Your task to perform on an android device: uninstall "HBO Max: Stream TV & Movies" Image 0: 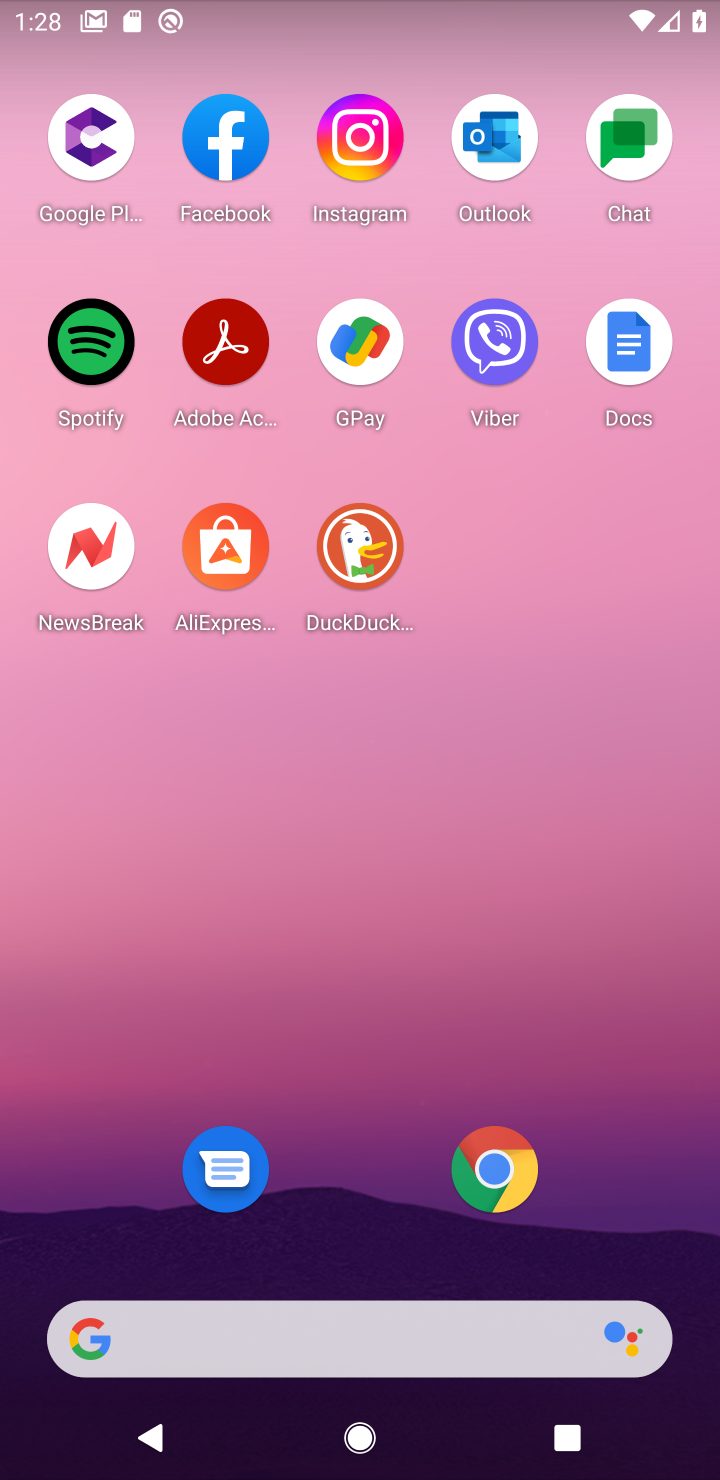
Step 0: click (475, 132)
Your task to perform on an android device: uninstall "HBO Max: Stream TV & Movies" Image 1: 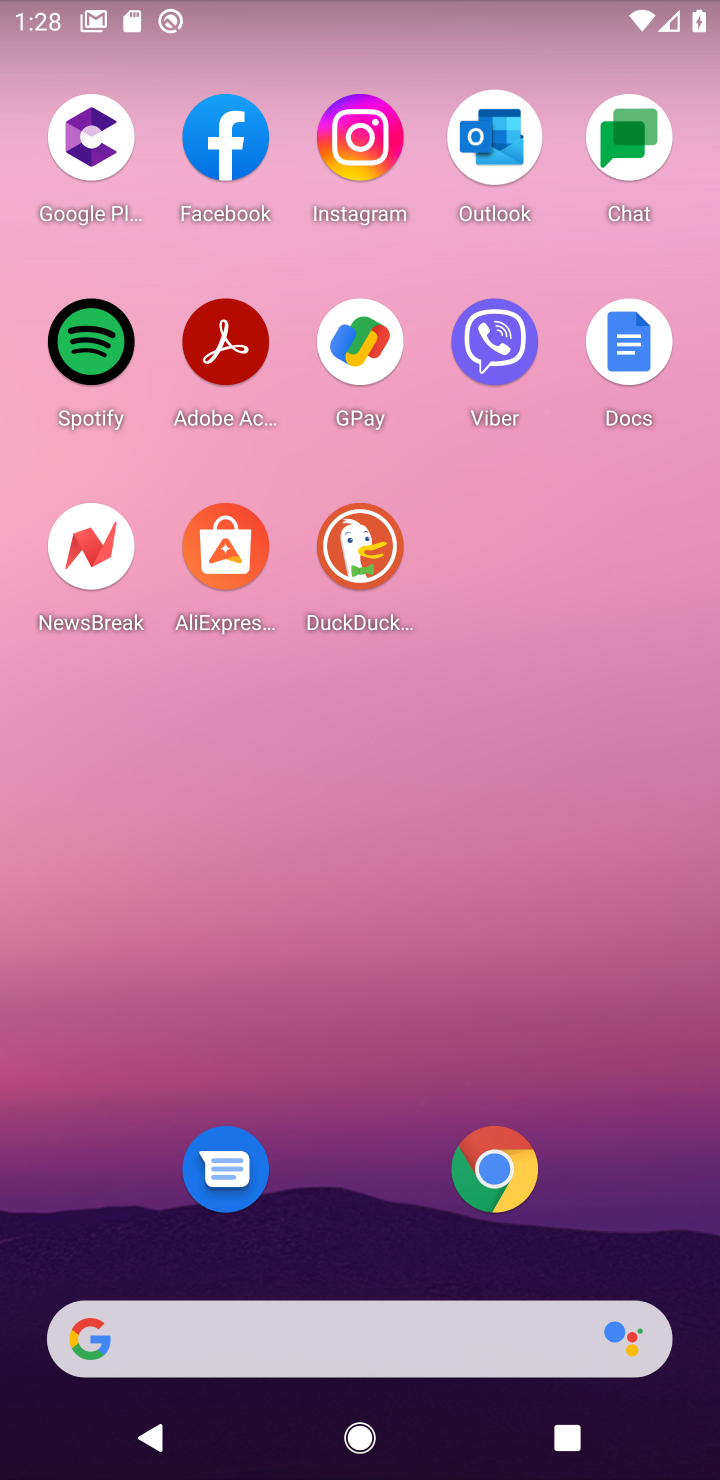
Step 1: click (392, 416)
Your task to perform on an android device: uninstall "HBO Max: Stream TV & Movies" Image 2: 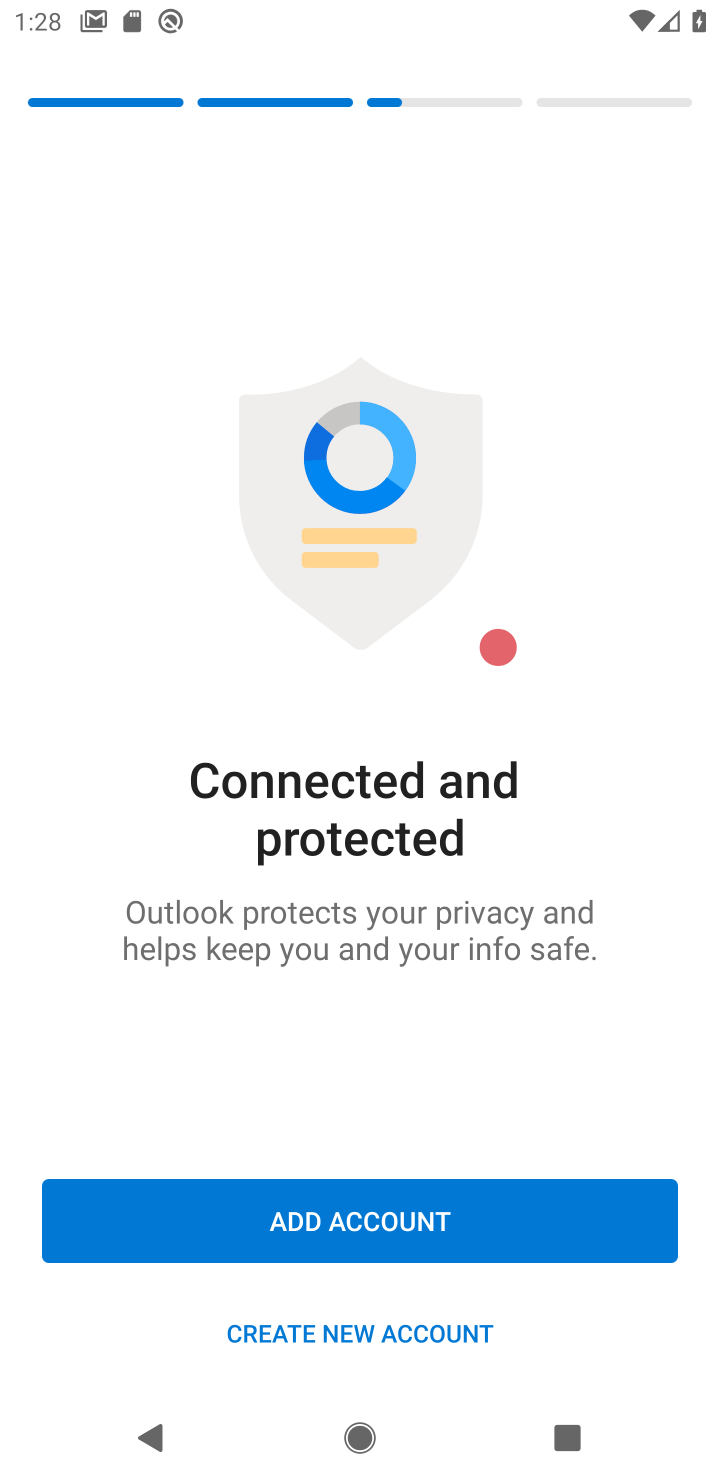
Step 2: press home button
Your task to perform on an android device: uninstall "HBO Max: Stream TV & Movies" Image 3: 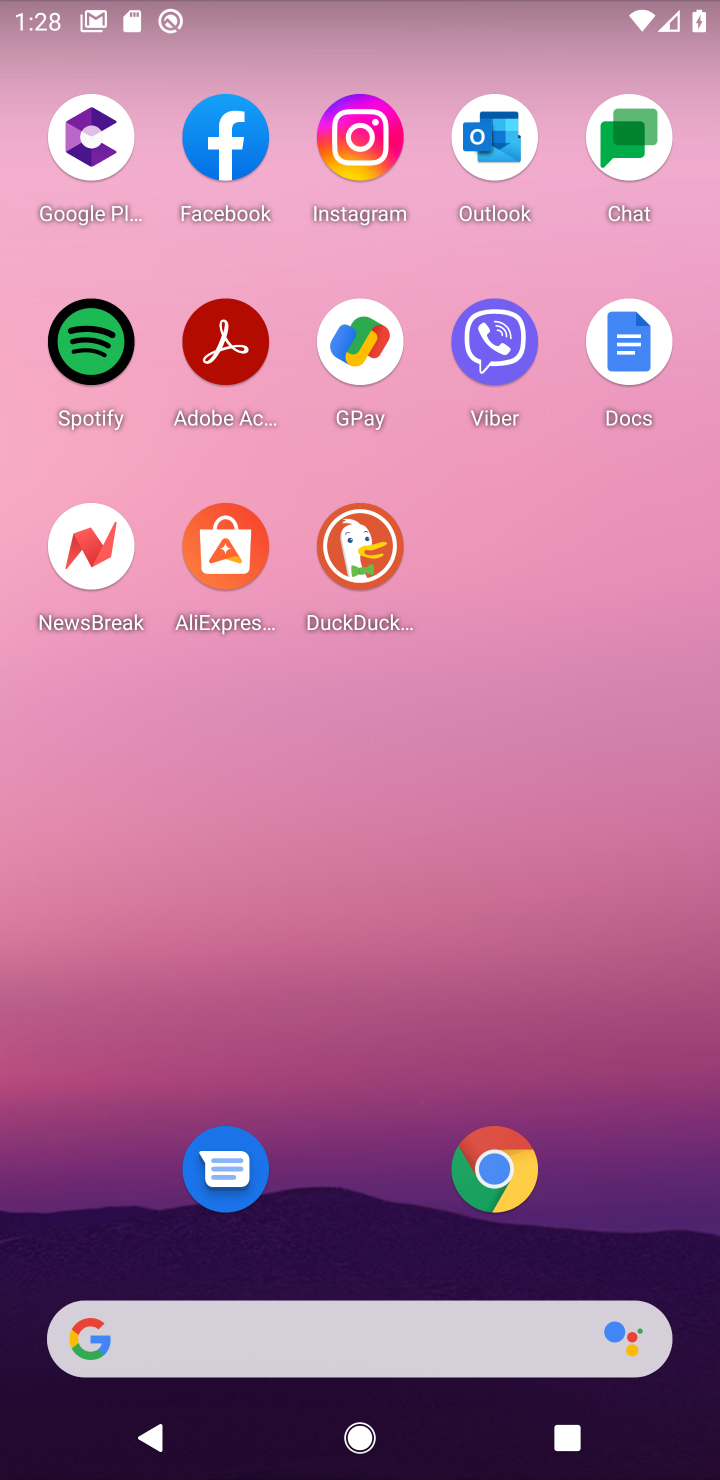
Step 3: click (378, 188)
Your task to perform on an android device: uninstall "HBO Max: Stream TV & Movies" Image 4: 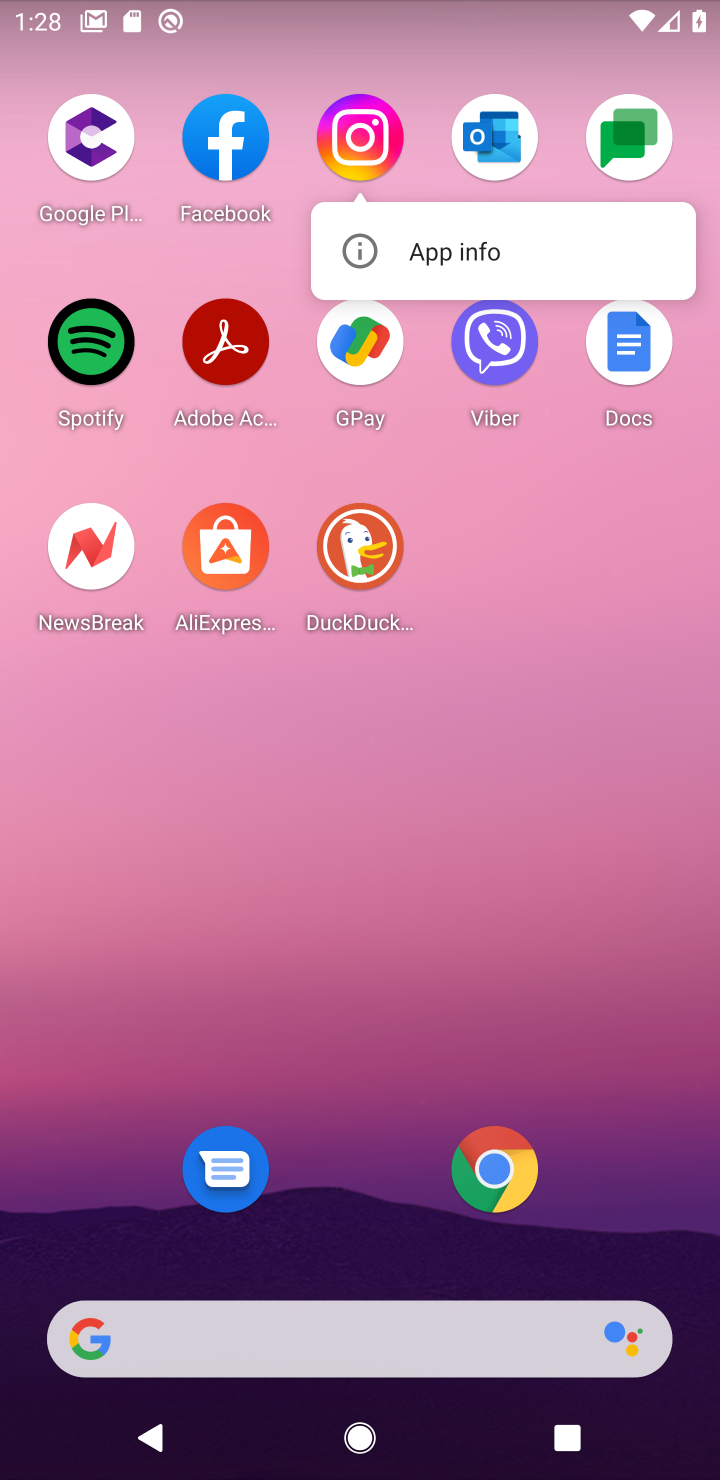
Step 4: drag from (388, 503) to (441, 375)
Your task to perform on an android device: uninstall "HBO Max: Stream TV & Movies" Image 5: 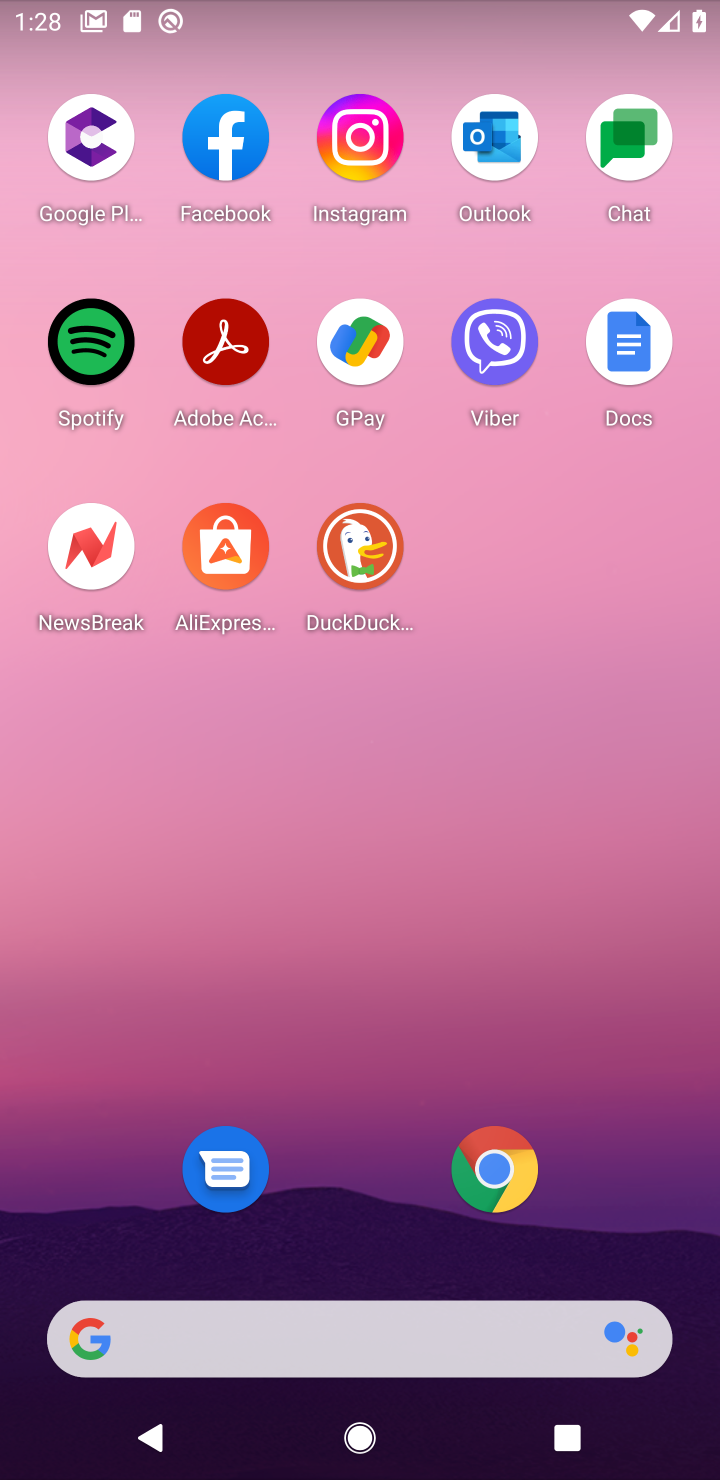
Step 5: drag from (329, 1247) to (411, 150)
Your task to perform on an android device: uninstall "HBO Max: Stream TV & Movies" Image 6: 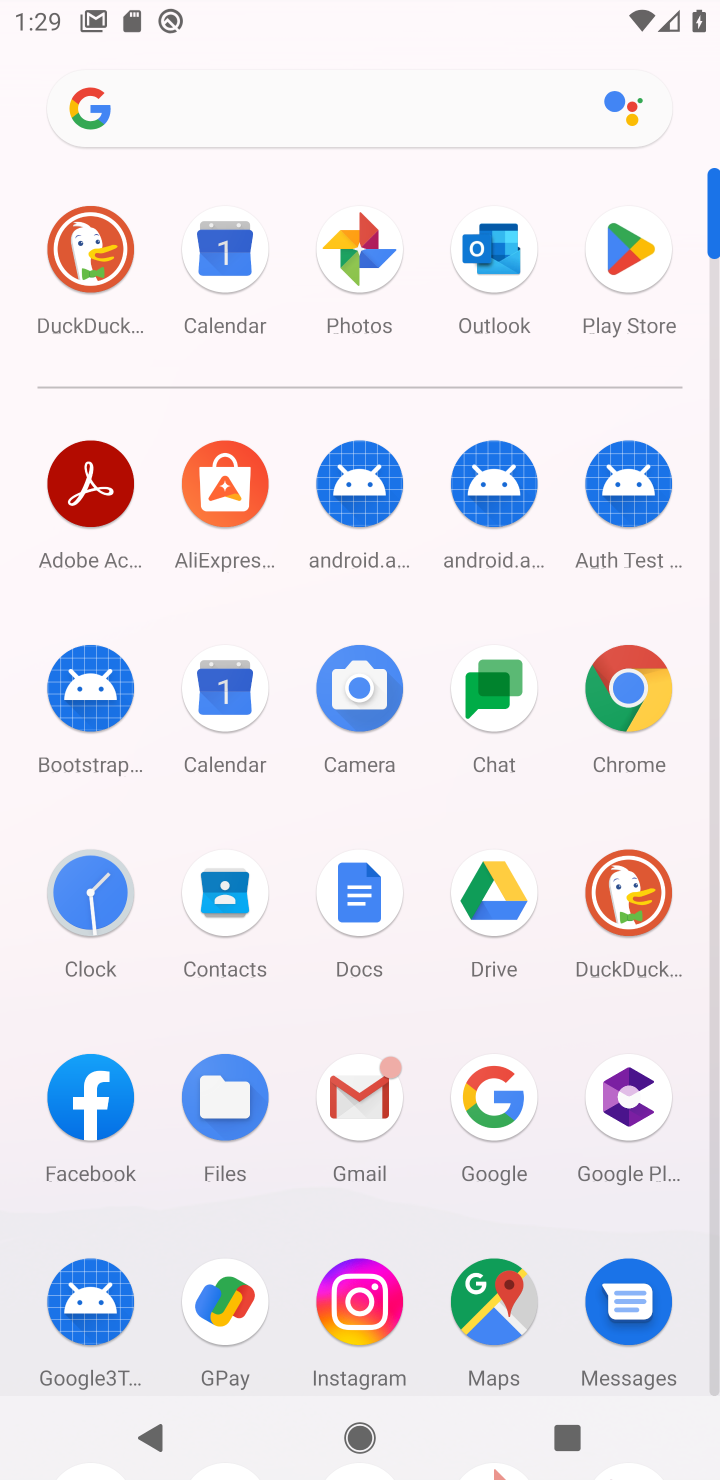
Step 6: click (626, 253)
Your task to perform on an android device: uninstall "HBO Max: Stream TV & Movies" Image 7: 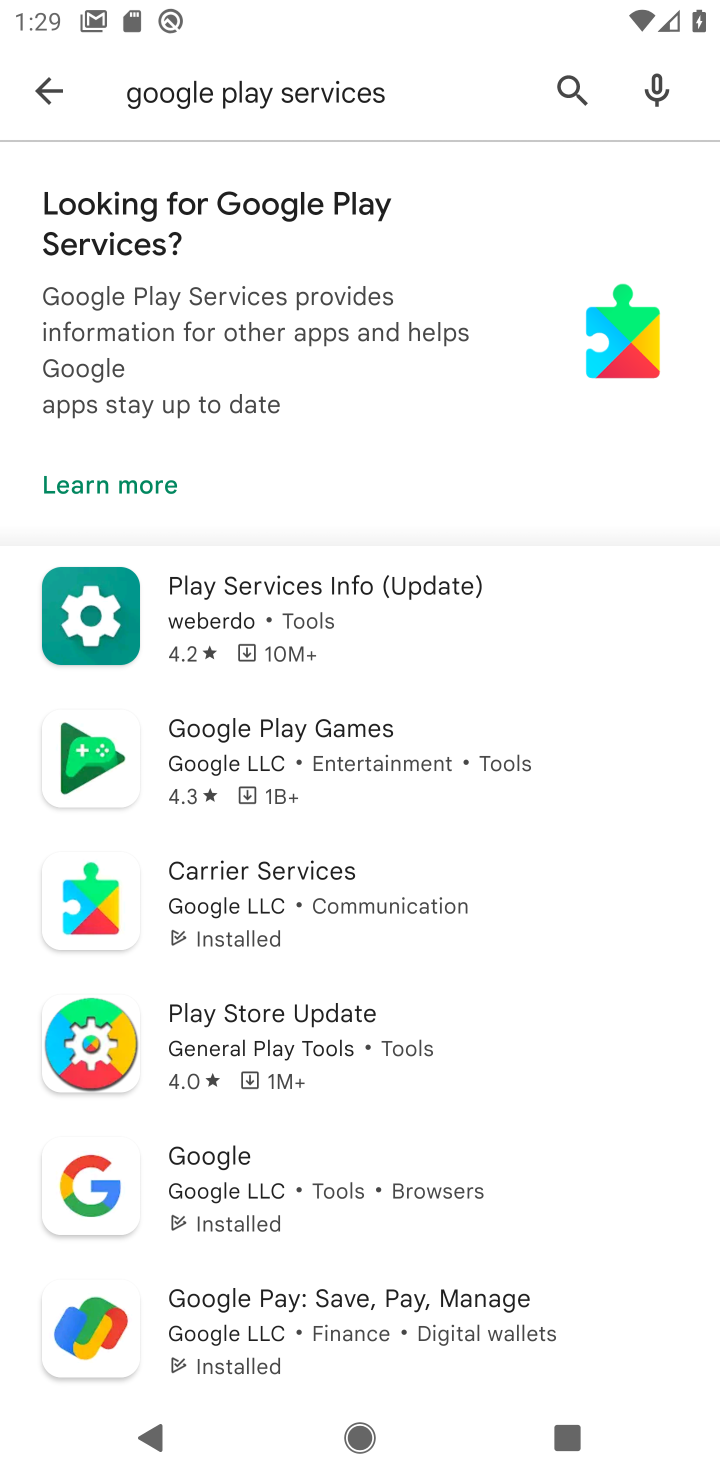
Step 7: click (45, 81)
Your task to perform on an android device: uninstall "HBO Max: Stream TV & Movies" Image 8: 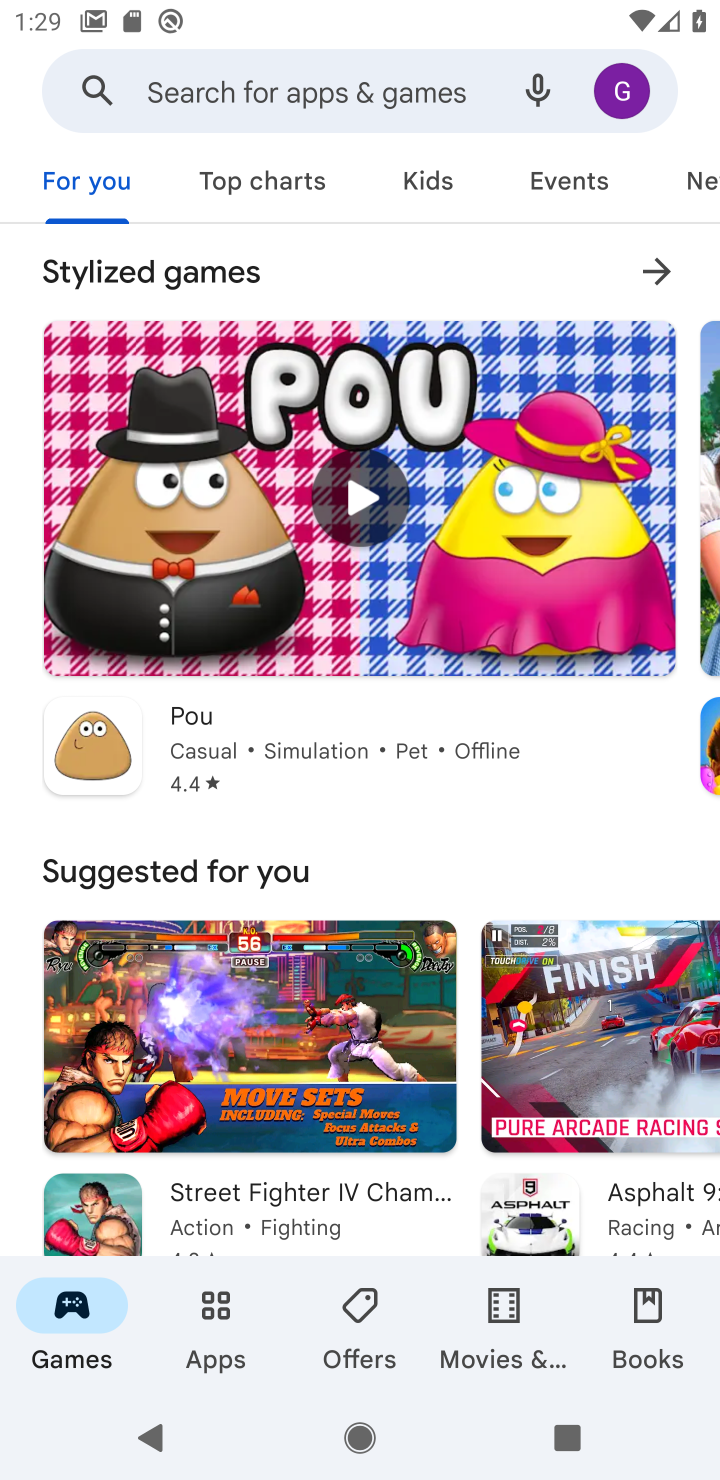
Step 8: click (290, 94)
Your task to perform on an android device: uninstall "HBO Max: Stream TV & Movies" Image 9: 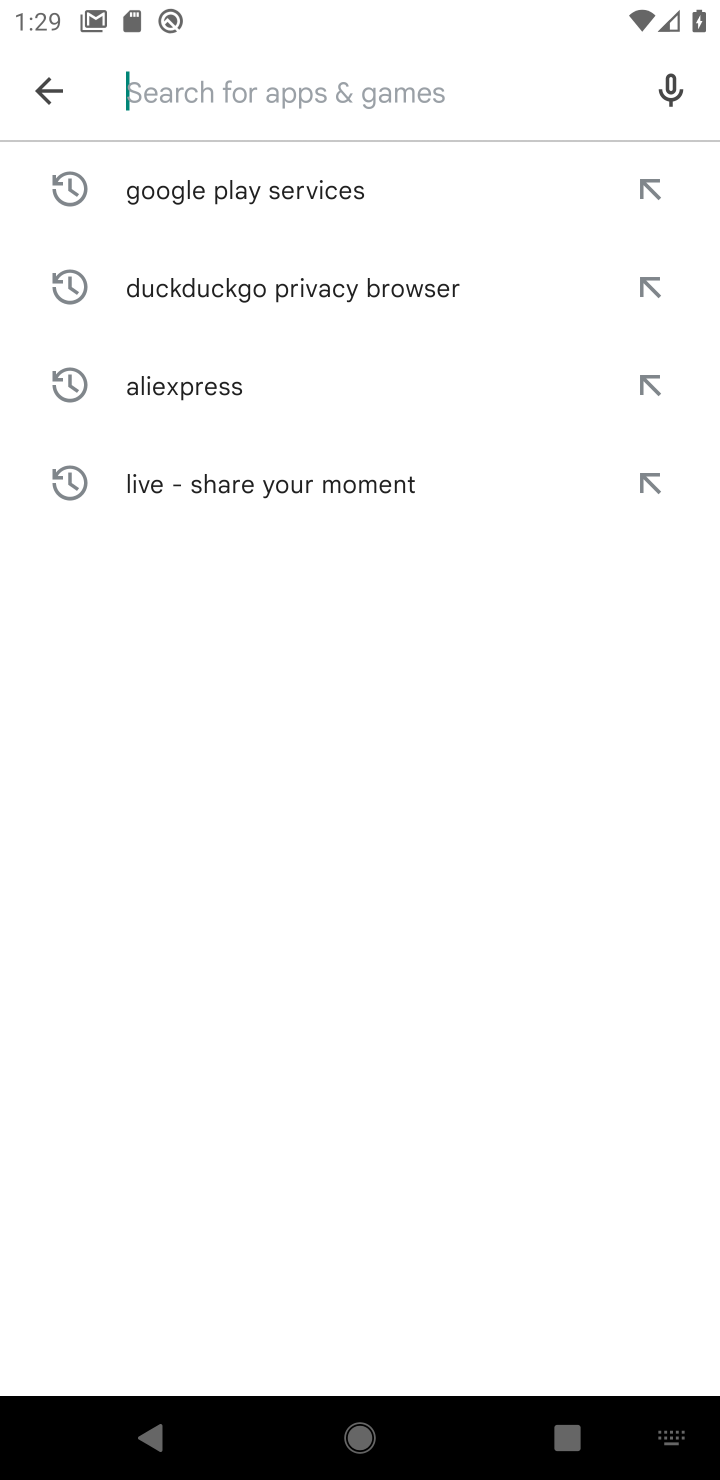
Step 9: type "HBO Max: Stream TV & Movies"
Your task to perform on an android device: uninstall "HBO Max: Stream TV & Movies" Image 10: 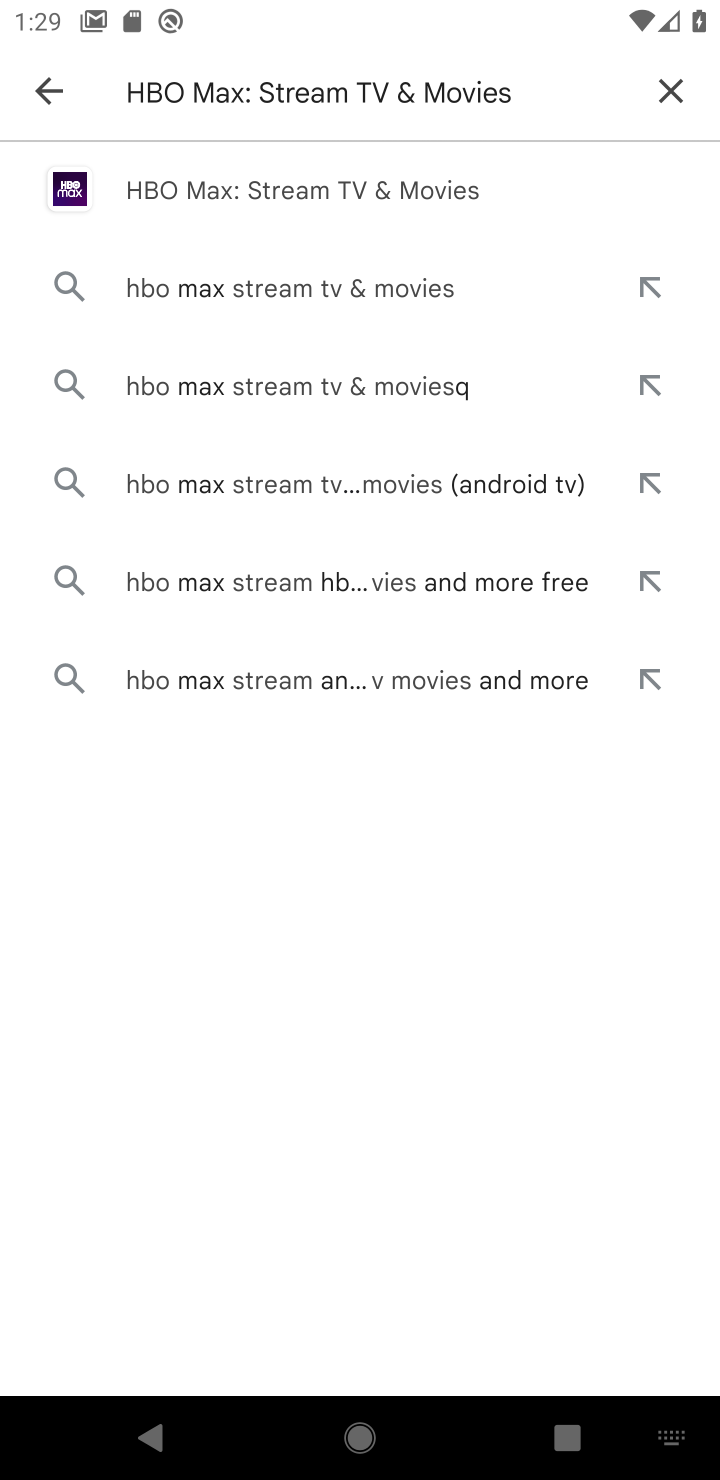
Step 10: click (270, 192)
Your task to perform on an android device: uninstall "HBO Max: Stream TV & Movies" Image 11: 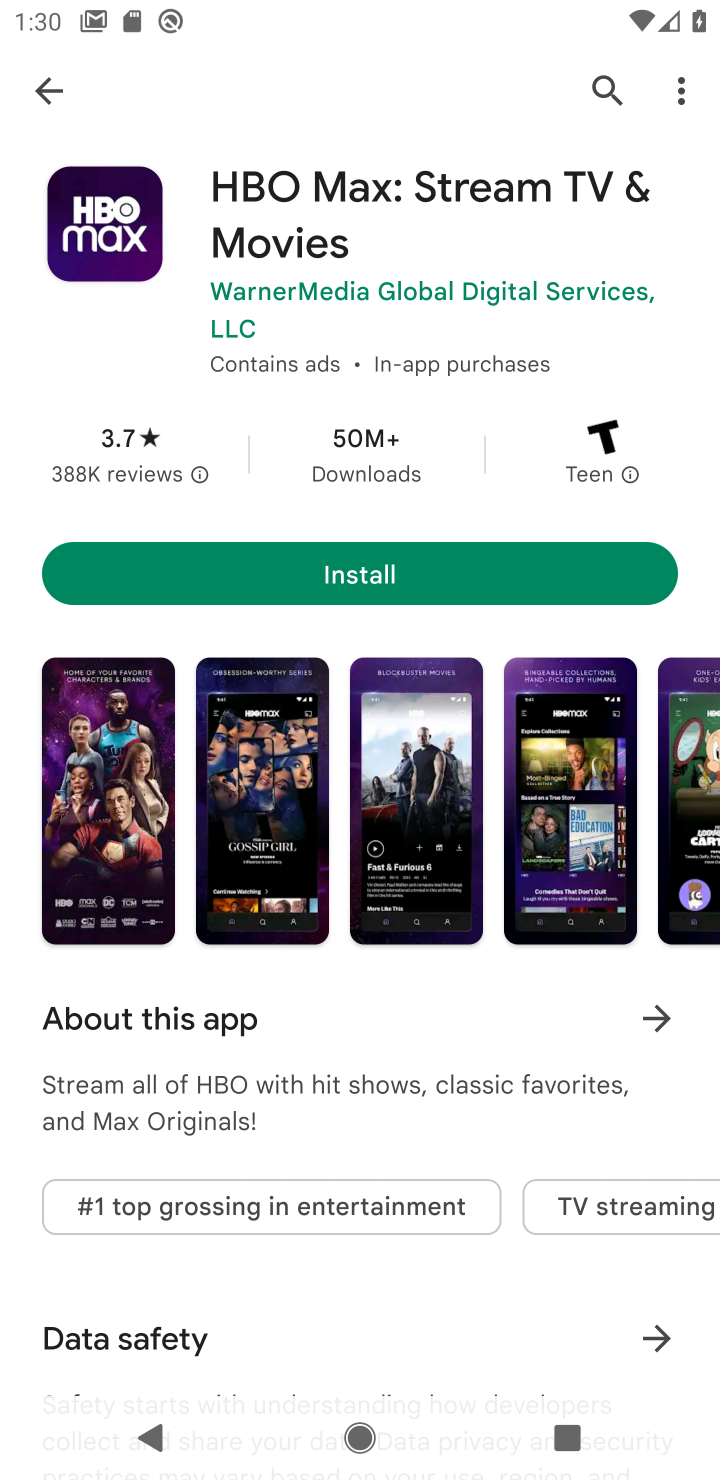
Step 11: task complete